Your task to perform on an android device: Do I have any events today? Image 0: 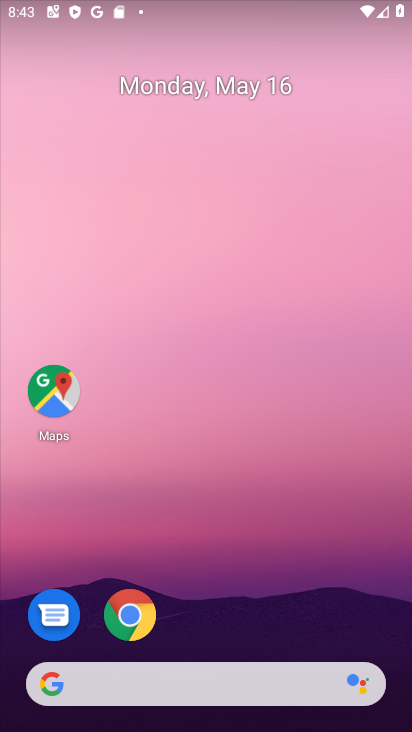
Step 0: press home button
Your task to perform on an android device: Do I have any events today? Image 1: 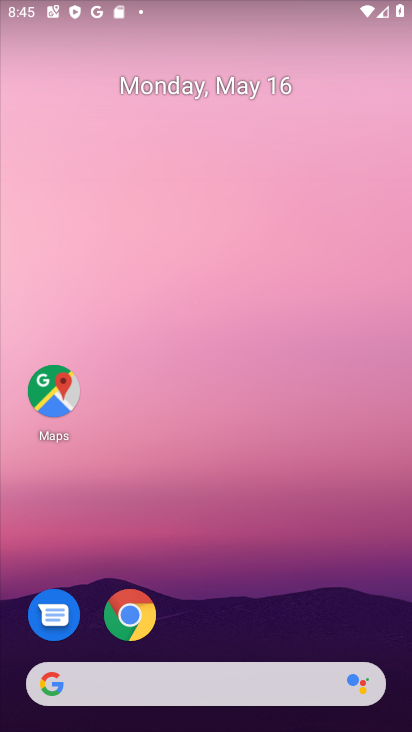
Step 1: drag from (18, 619) to (240, 131)
Your task to perform on an android device: Do I have any events today? Image 2: 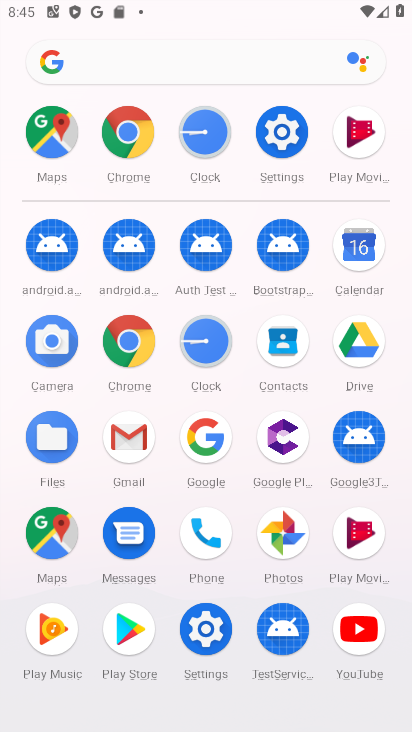
Step 2: click (365, 248)
Your task to perform on an android device: Do I have any events today? Image 3: 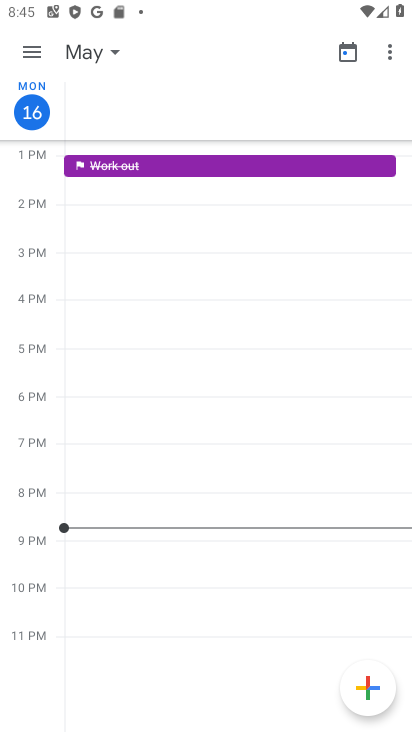
Step 3: click (93, 52)
Your task to perform on an android device: Do I have any events today? Image 4: 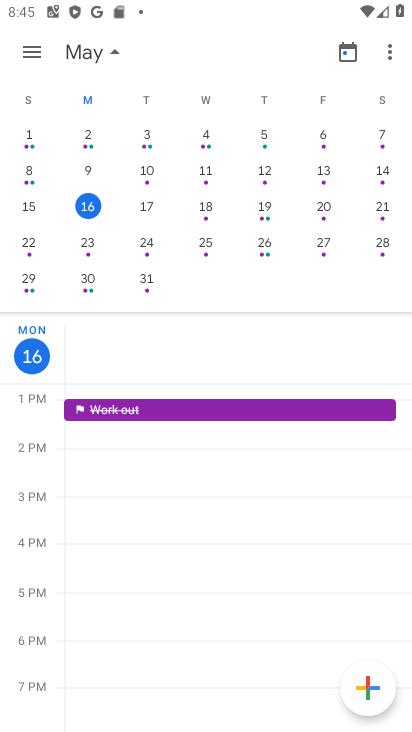
Step 4: click (133, 208)
Your task to perform on an android device: Do I have any events today? Image 5: 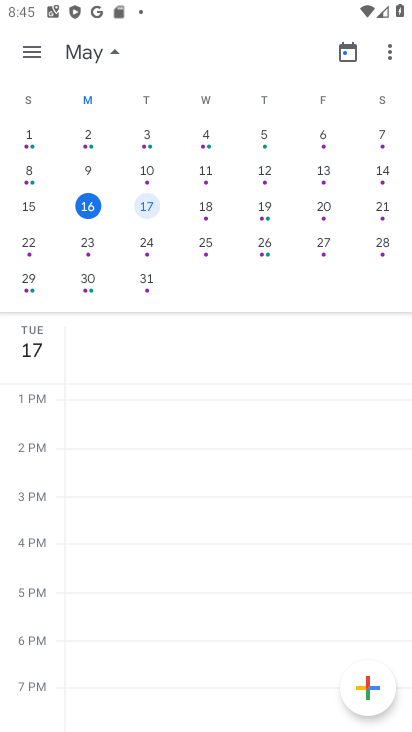
Step 5: task complete